Your task to perform on an android device: turn on improve location accuracy Image 0: 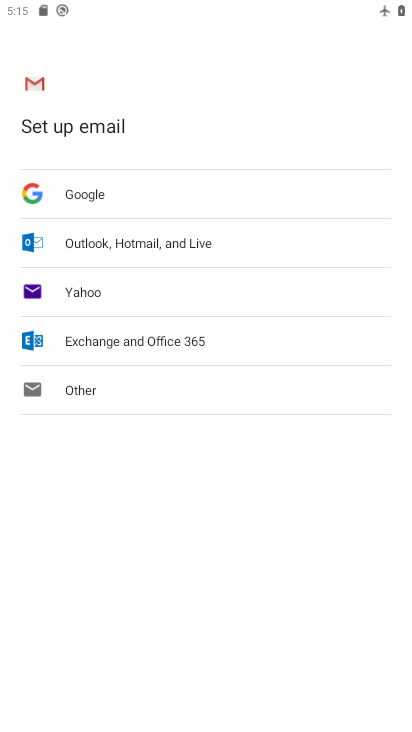
Step 0: press home button
Your task to perform on an android device: turn on improve location accuracy Image 1: 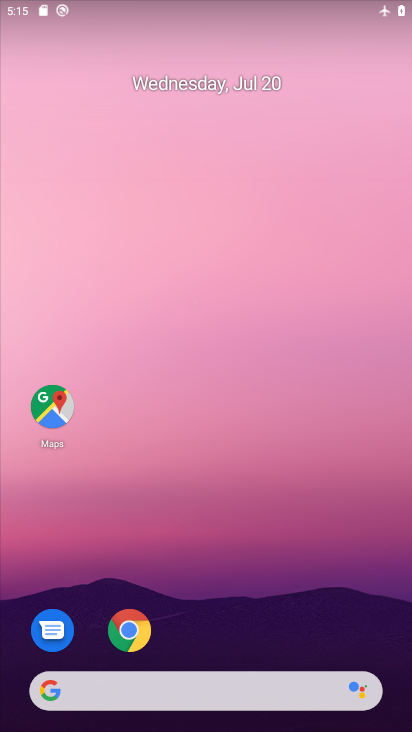
Step 1: drag from (262, 649) to (295, 127)
Your task to perform on an android device: turn on improve location accuracy Image 2: 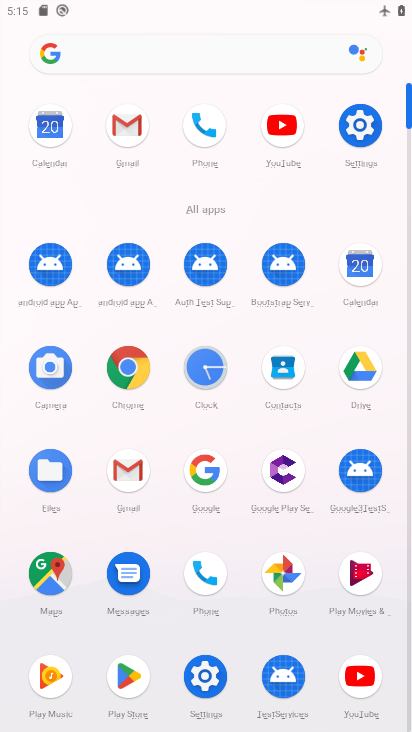
Step 2: click (363, 137)
Your task to perform on an android device: turn on improve location accuracy Image 3: 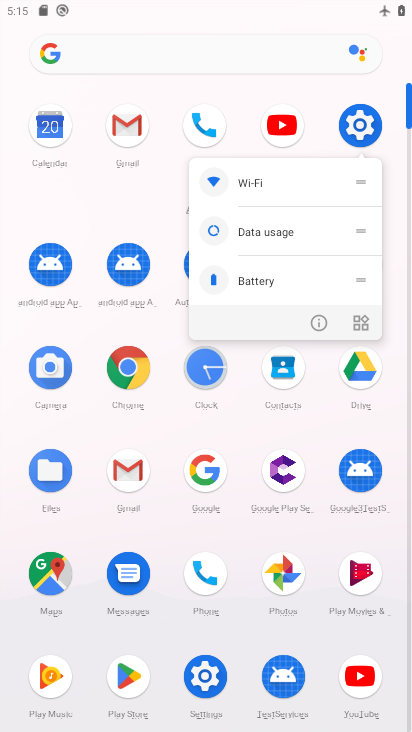
Step 3: click (368, 132)
Your task to perform on an android device: turn on improve location accuracy Image 4: 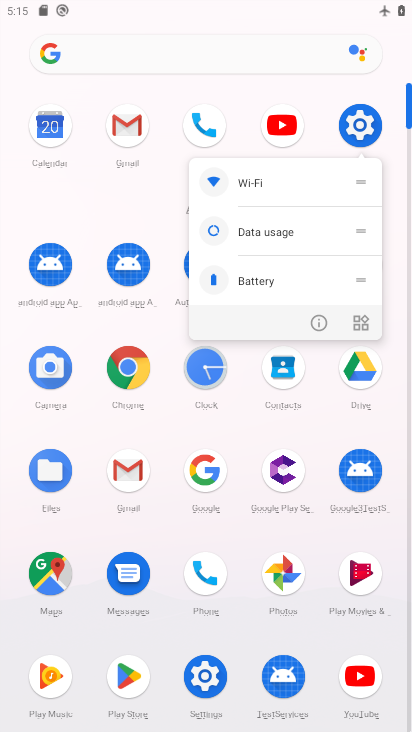
Step 4: click (366, 106)
Your task to perform on an android device: turn on improve location accuracy Image 5: 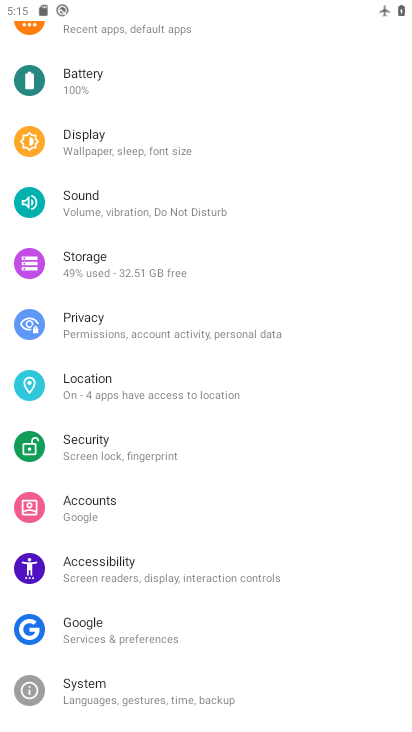
Step 5: click (91, 387)
Your task to perform on an android device: turn on improve location accuracy Image 6: 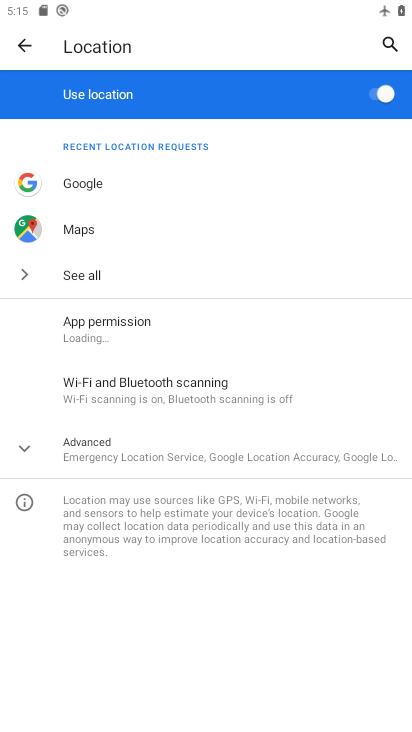
Step 6: click (107, 458)
Your task to perform on an android device: turn on improve location accuracy Image 7: 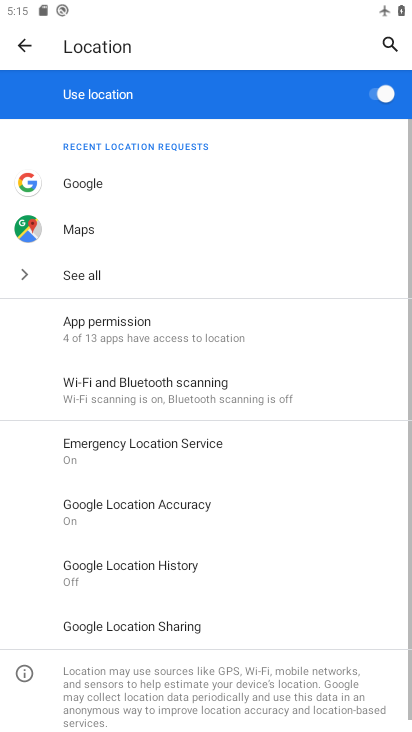
Step 7: click (150, 506)
Your task to perform on an android device: turn on improve location accuracy Image 8: 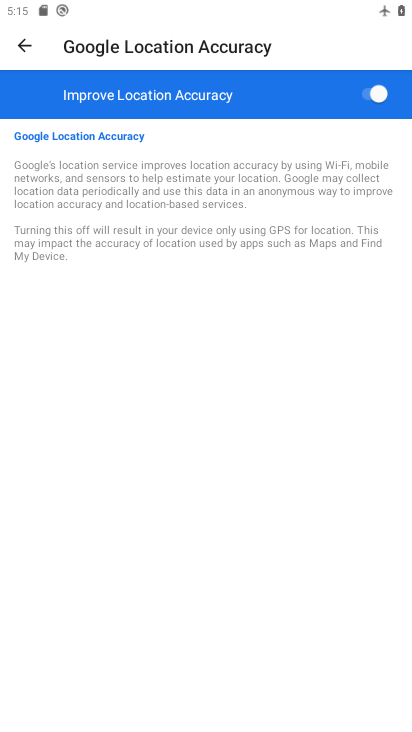
Step 8: task complete